Your task to perform on an android device: Clear all items from cart on newegg.com. Image 0: 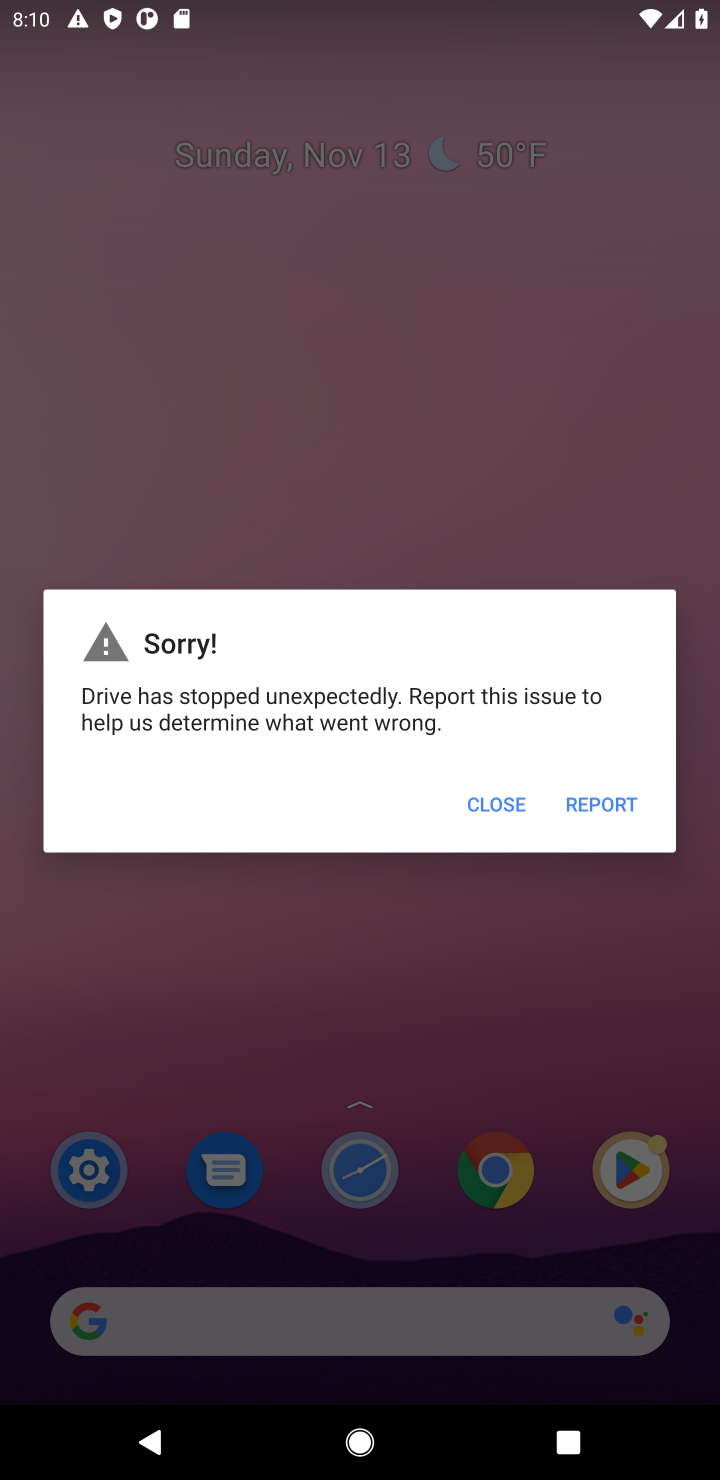
Step 0: click (496, 804)
Your task to perform on an android device: Clear all items from cart on newegg.com. Image 1: 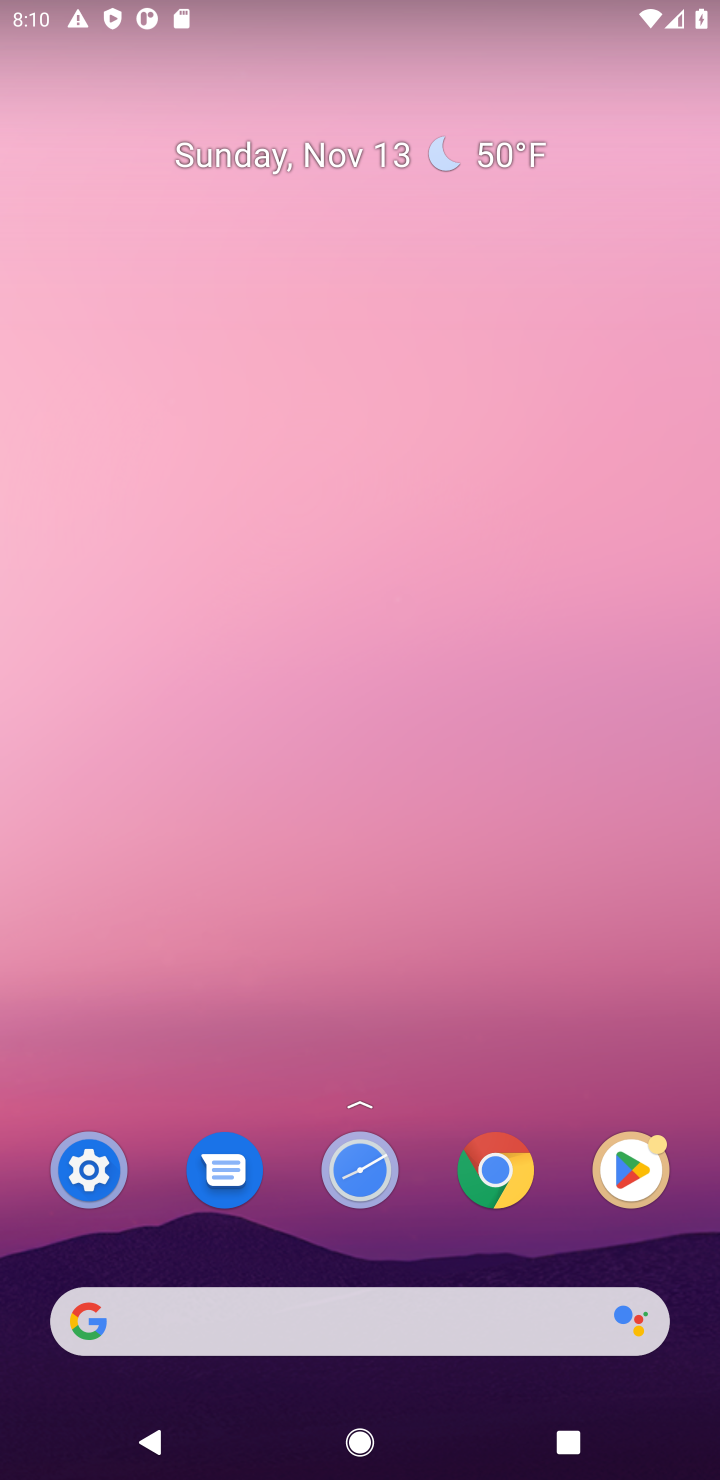
Step 1: click (417, 1313)
Your task to perform on an android device: Clear all items from cart on newegg.com. Image 2: 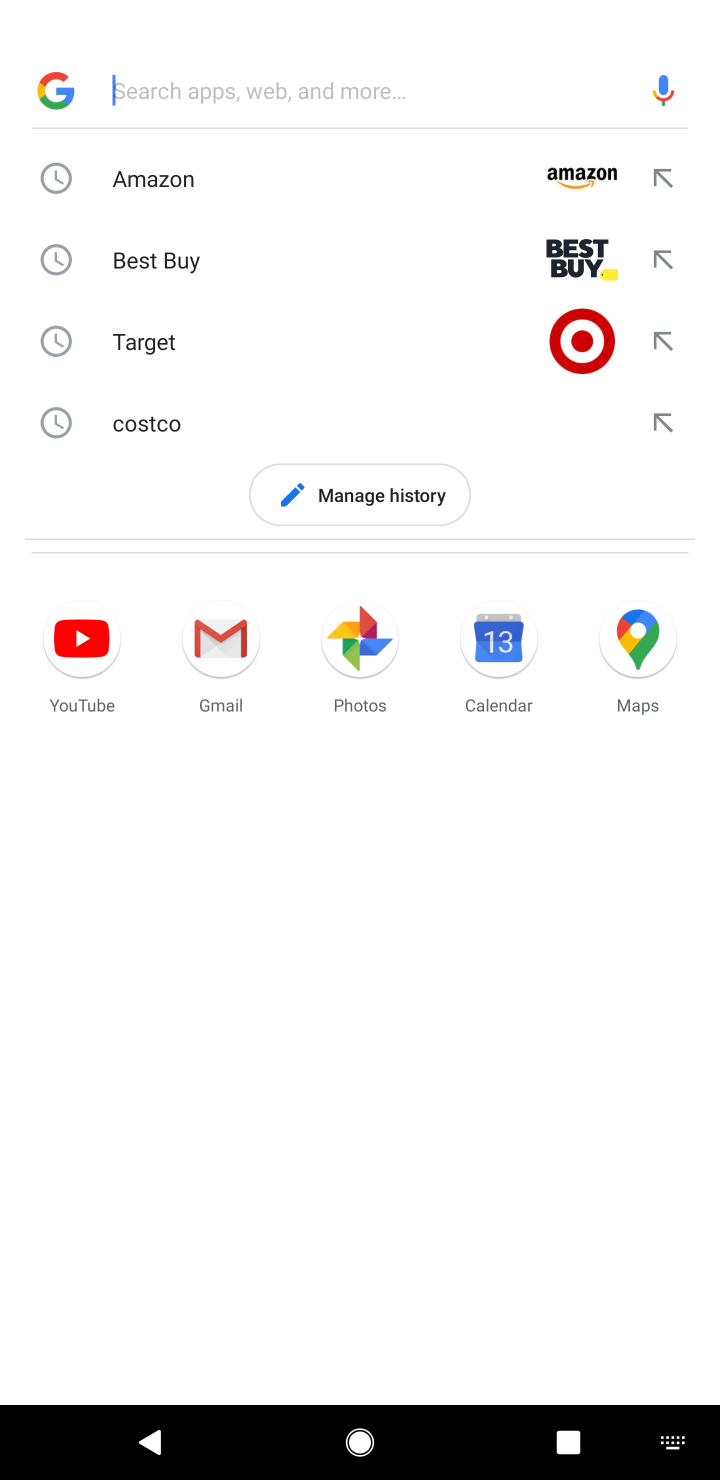
Step 2: type "newegg"
Your task to perform on an android device: Clear all items from cart on newegg.com. Image 3: 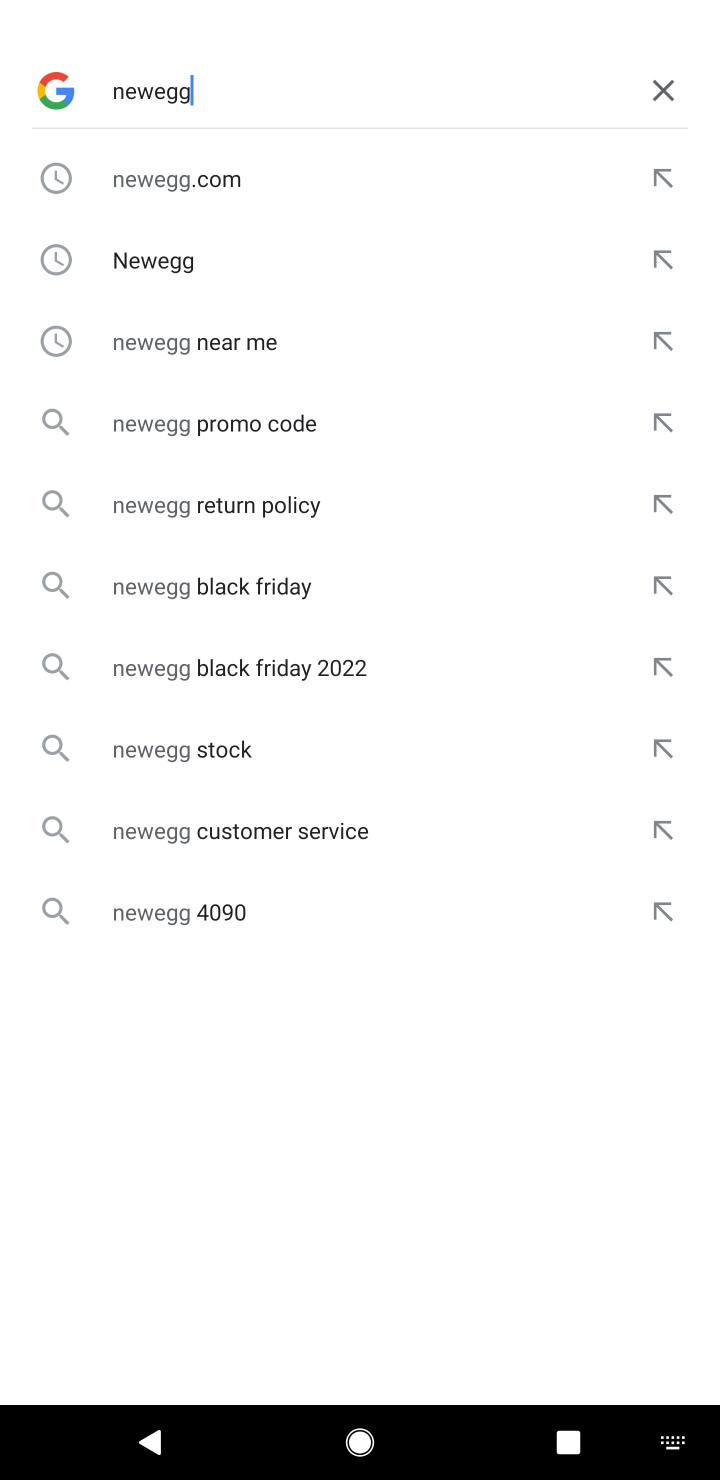
Step 3: click (195, 144)
Your task to perform on an android device: Clear all items from cart on newegg.com. Image 4: 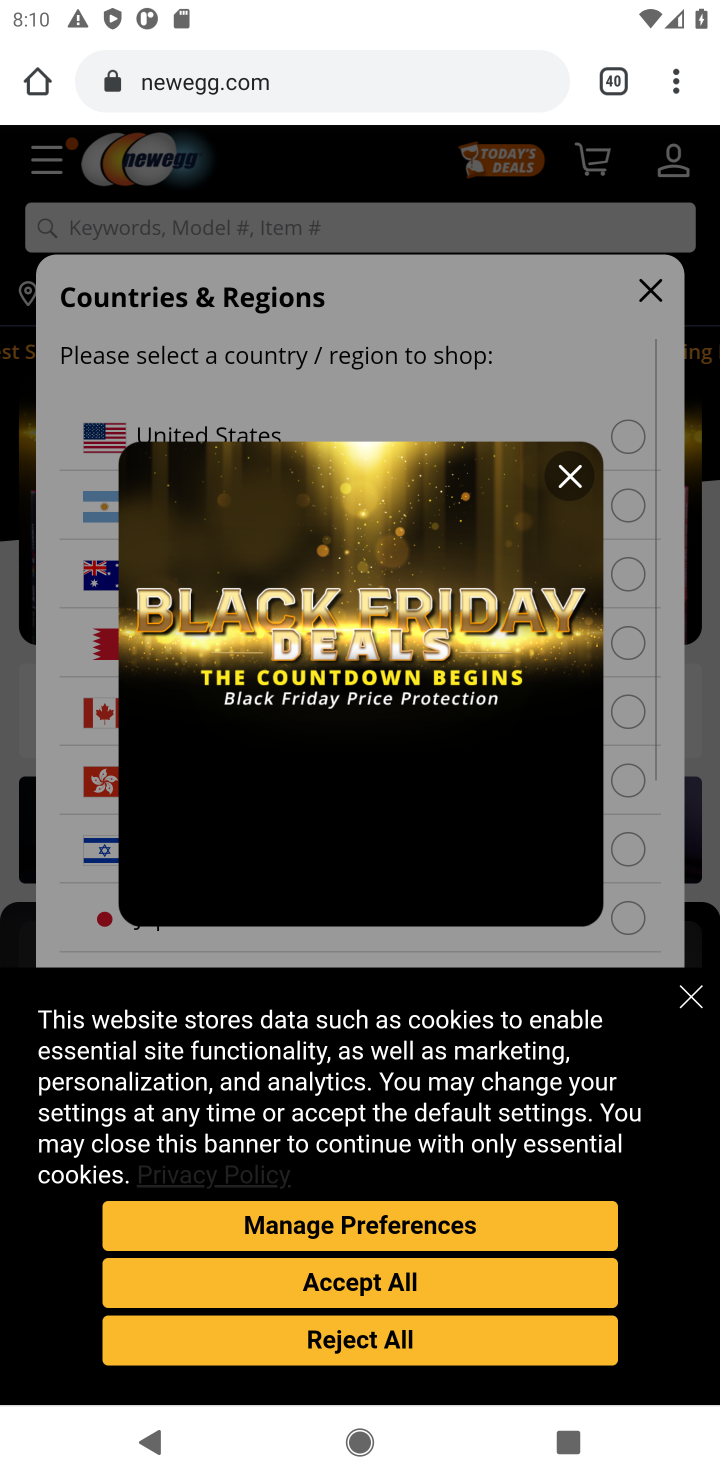
Step 4: click (572, 466)
Your task to perform on an android device: Clear all items from cart on newegg.com. Image 5: 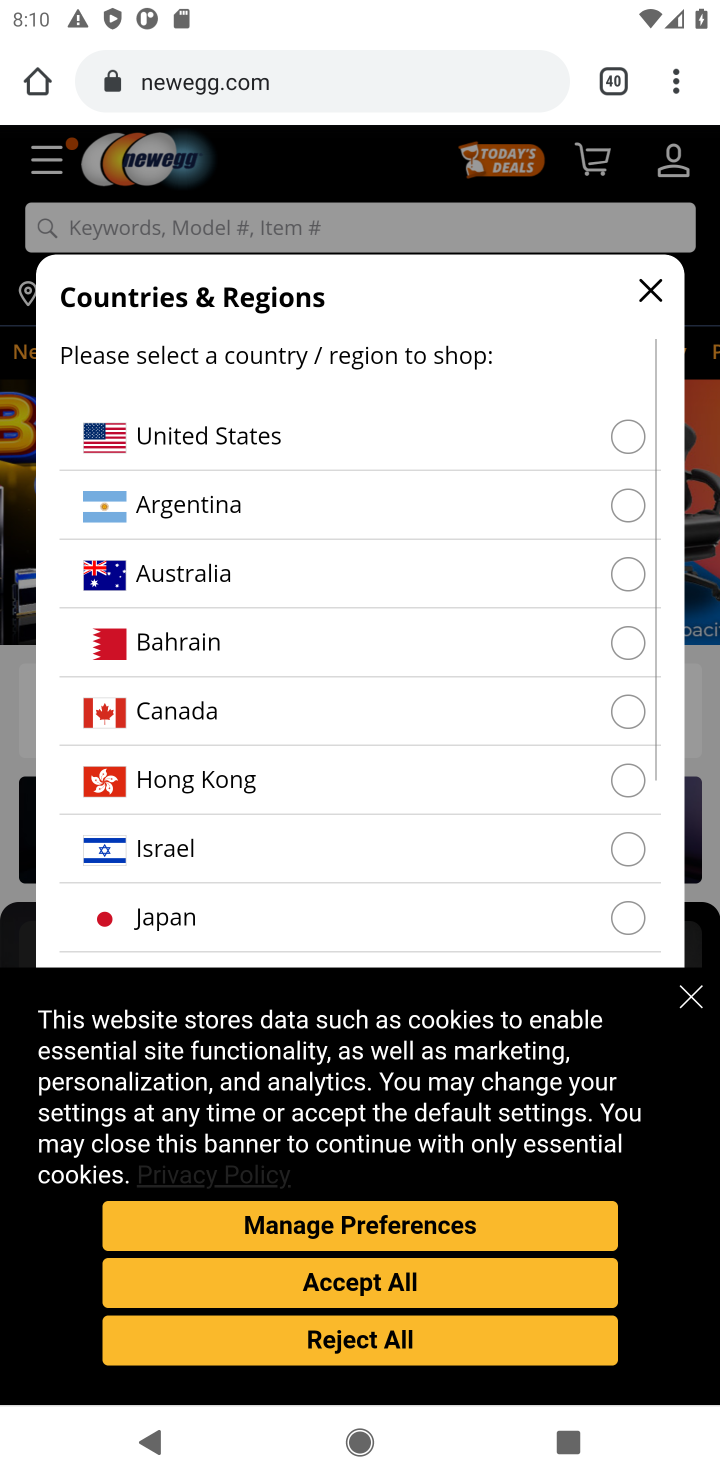
Step 5: click (527, 445)
Your task to perform on an android device: Clear all items from cart on newegg.com. Image 6: 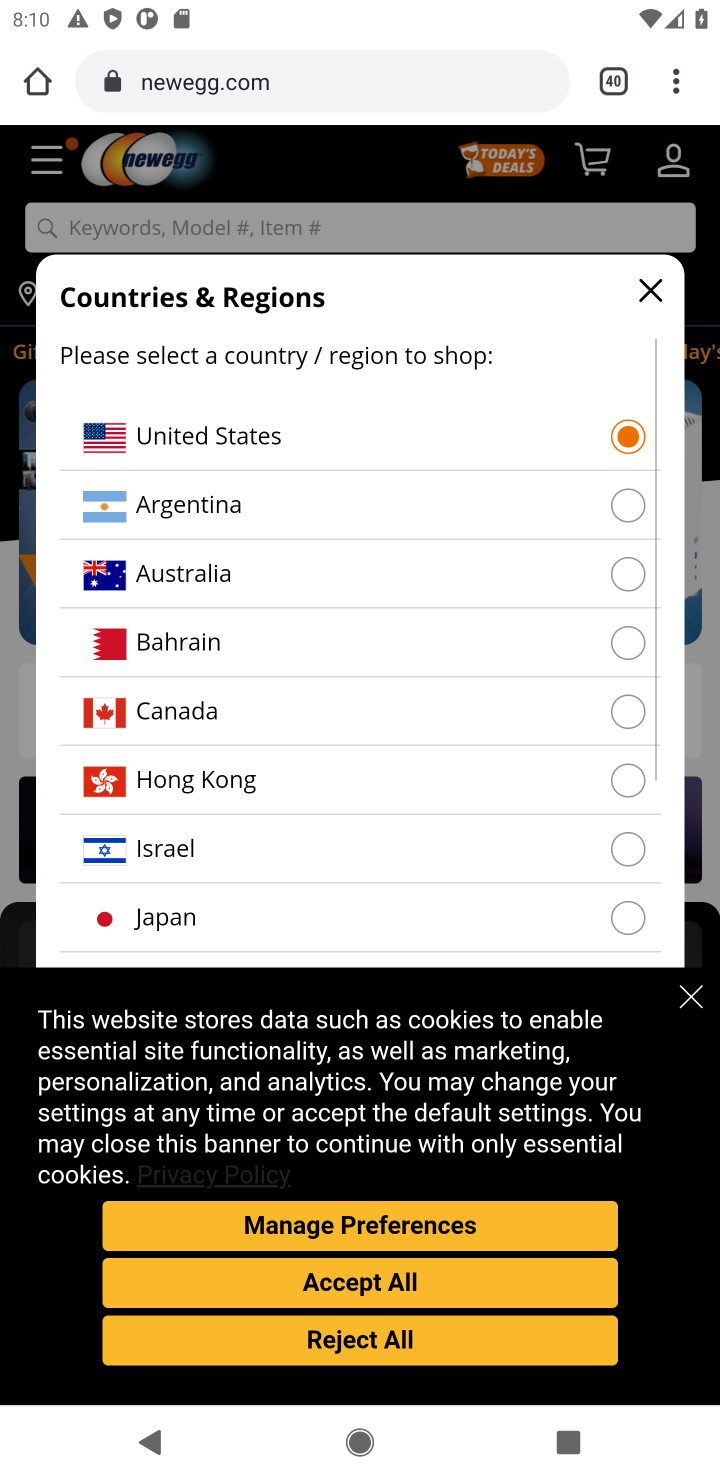
Step 6: click (442, 1293)
Your task to perform on an android device: Clear all items from cart on newegg.com. Image 7: 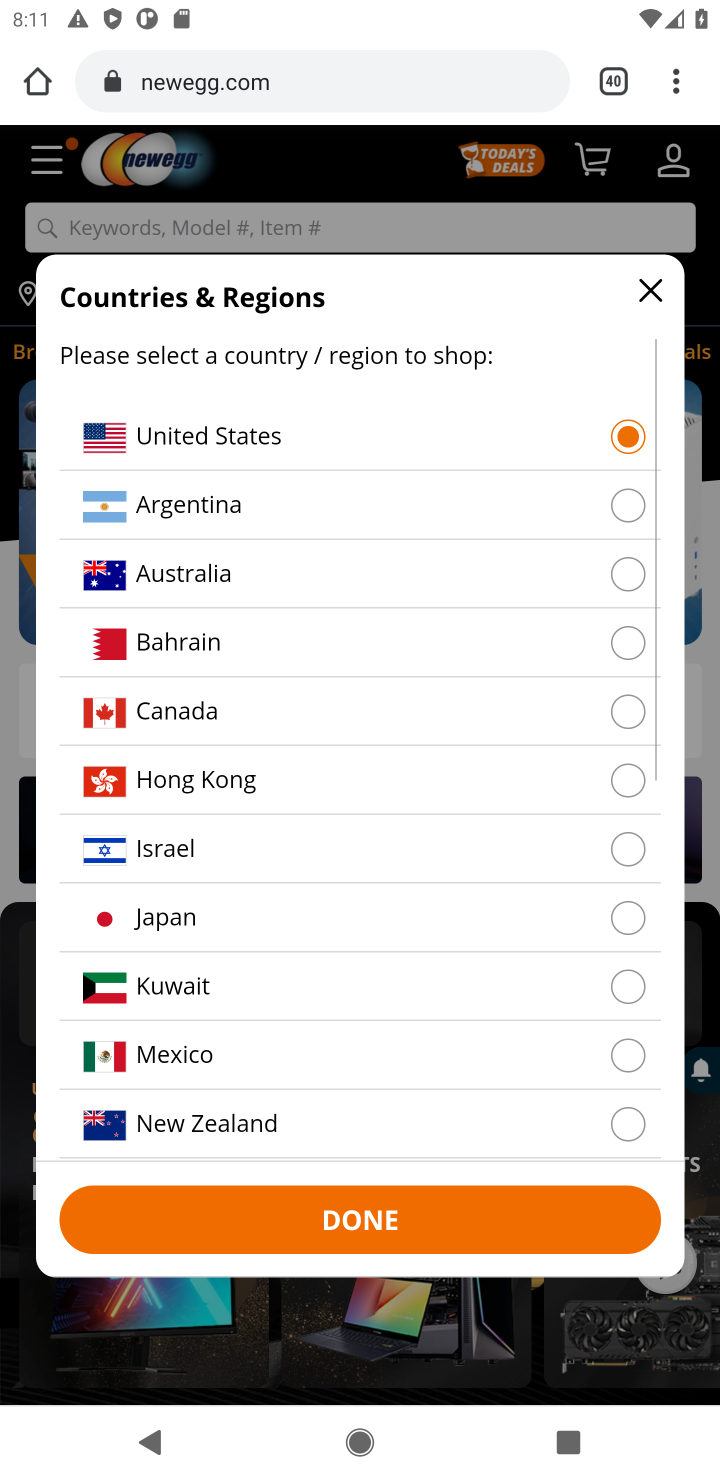
Step 7: click (483, 1207)
Your task to perform on an android device: Clear all items from cart on newegg.com. Image 8: 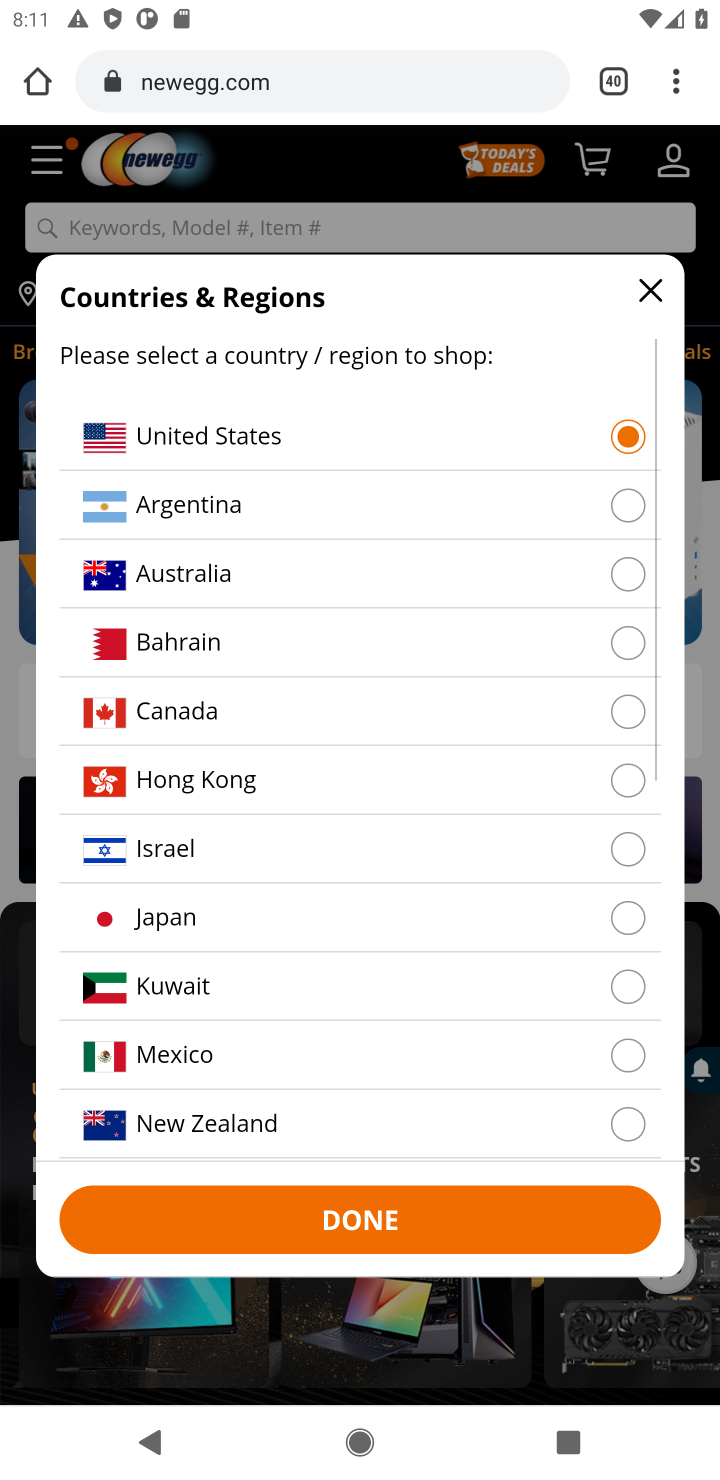
Step 8: click (483, 1207)
Your task to perform on an android device: Clear all items from cart on newegg.com. Image 9: 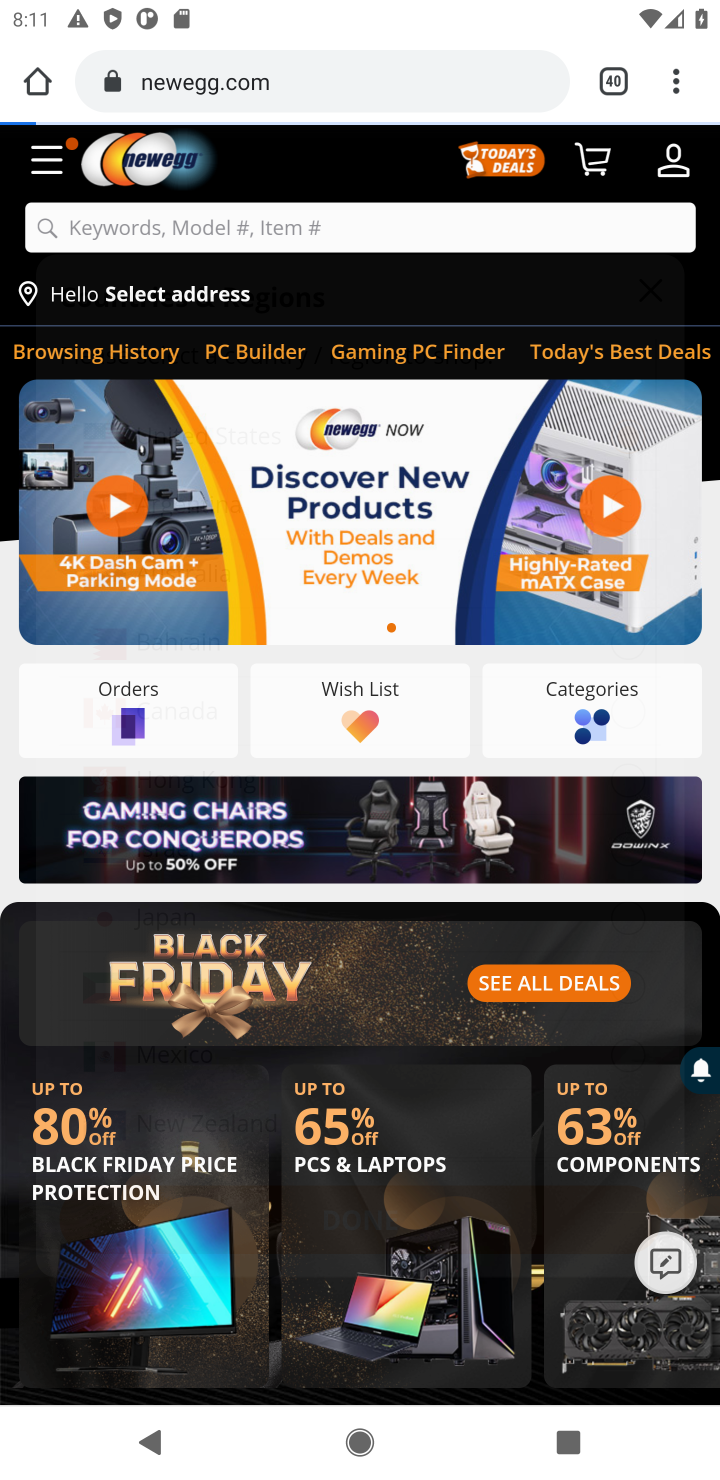
Step 9: task complete